Your task to perform on an android device: open wifi settings Image 0: 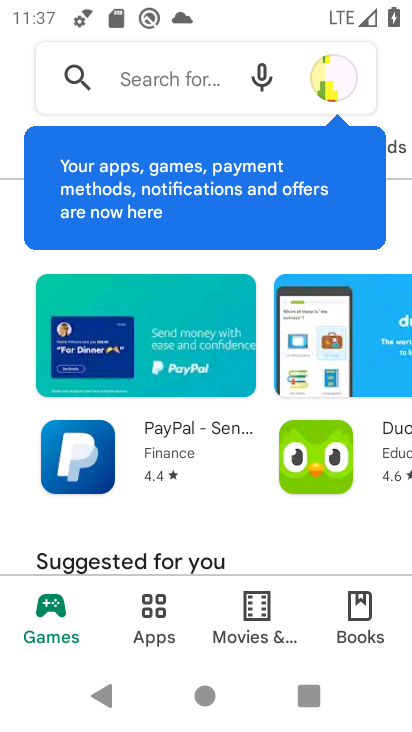
Step 0: press home button
Your task to perform on an android device: open wifi settings Image 1: 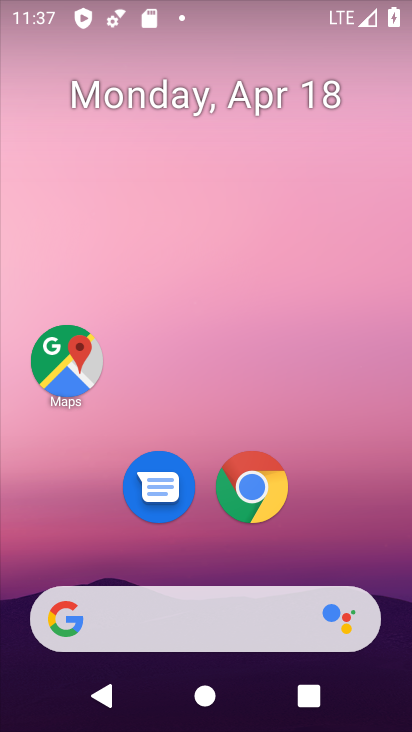
Step 1: drag from (190, 405) to (107, 13)
Your task to perform on an android device: open wifi settings Image 2: 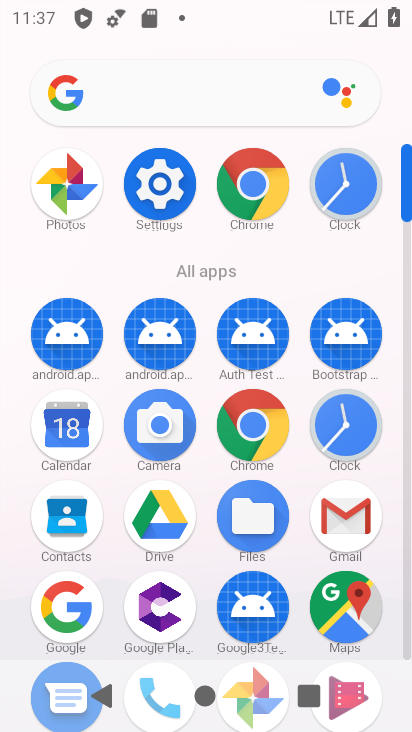
Step 2: click (159, 177)
Your task to perform on an android device: open wifi settings Image 3: 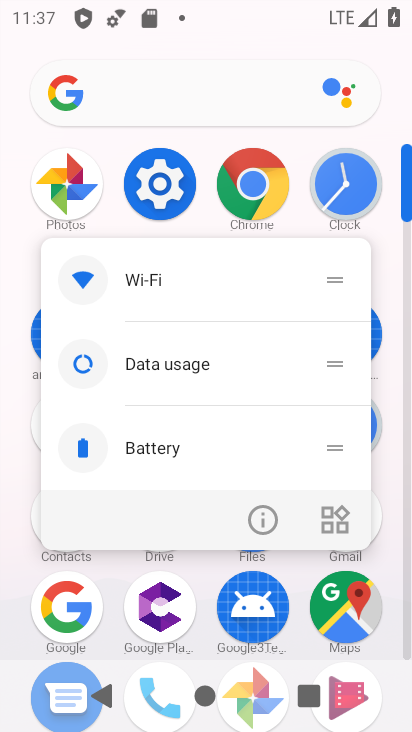
Step 3: click (155, 188)
Your task to perform on an android device: open wifi settings Image 4: 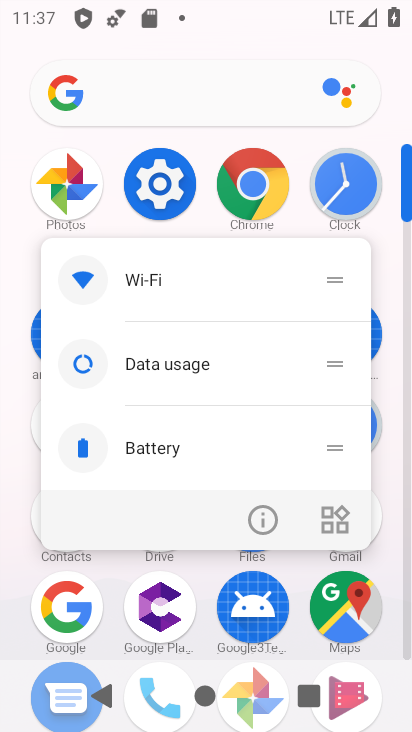
Step 4: click (155, 188)
Your task to perform on an android device: open wifi settings Image 5: 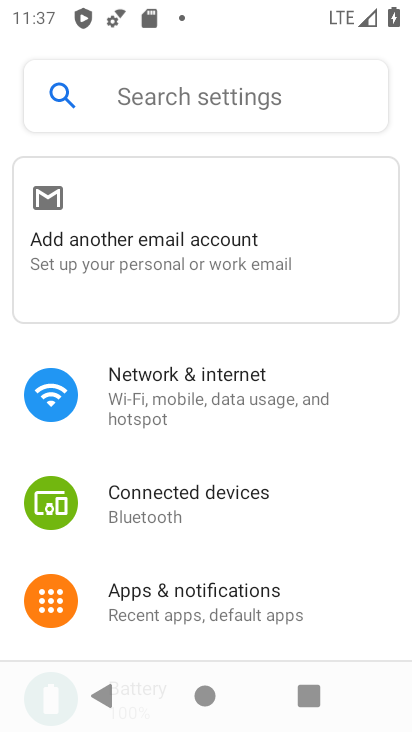
Step 5: click (151, 398)
Your task to perform on an android device: open wifi settings Image 6: 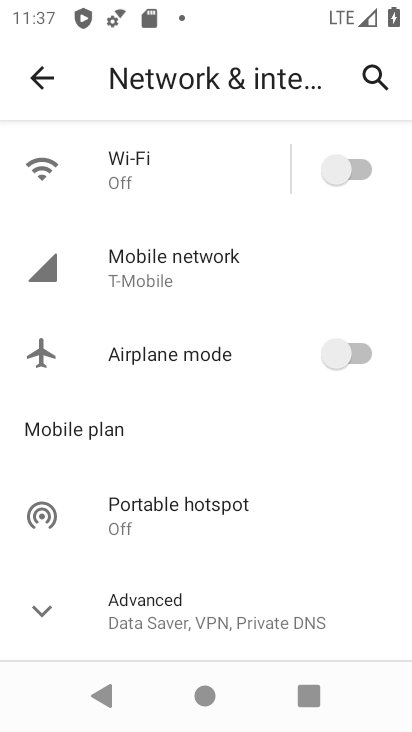
Step 6: click (137, 167)
Your task to perform on an android device: open wifi settings Image 7: 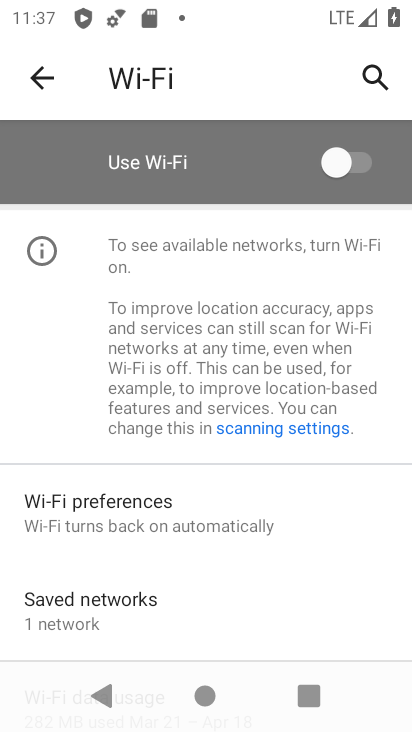
Step 7: task complete